Your task to perform on an android device: open app "LinkedIn" Image 0: 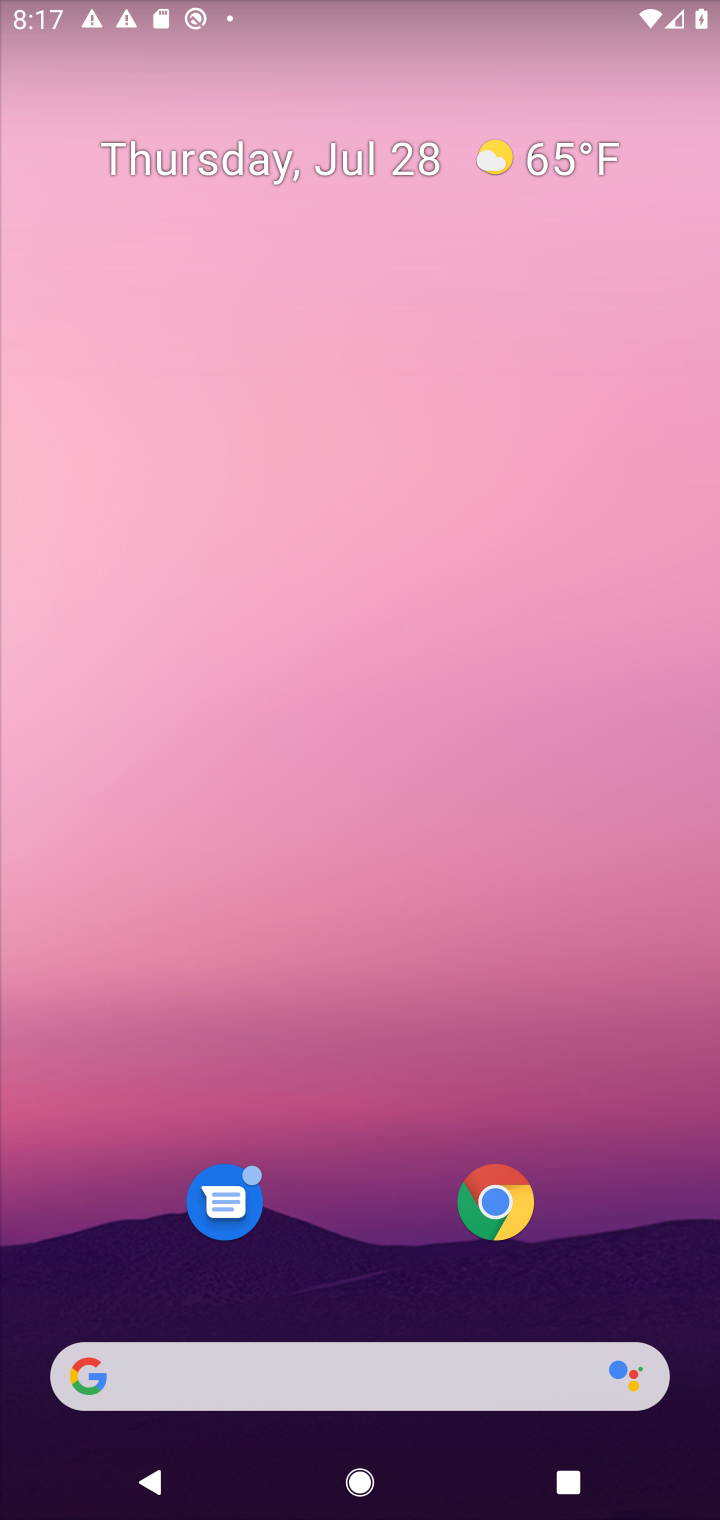
Step 0: press home button
Your task to perform on an android device: open app "LinkedIn" Image 1: 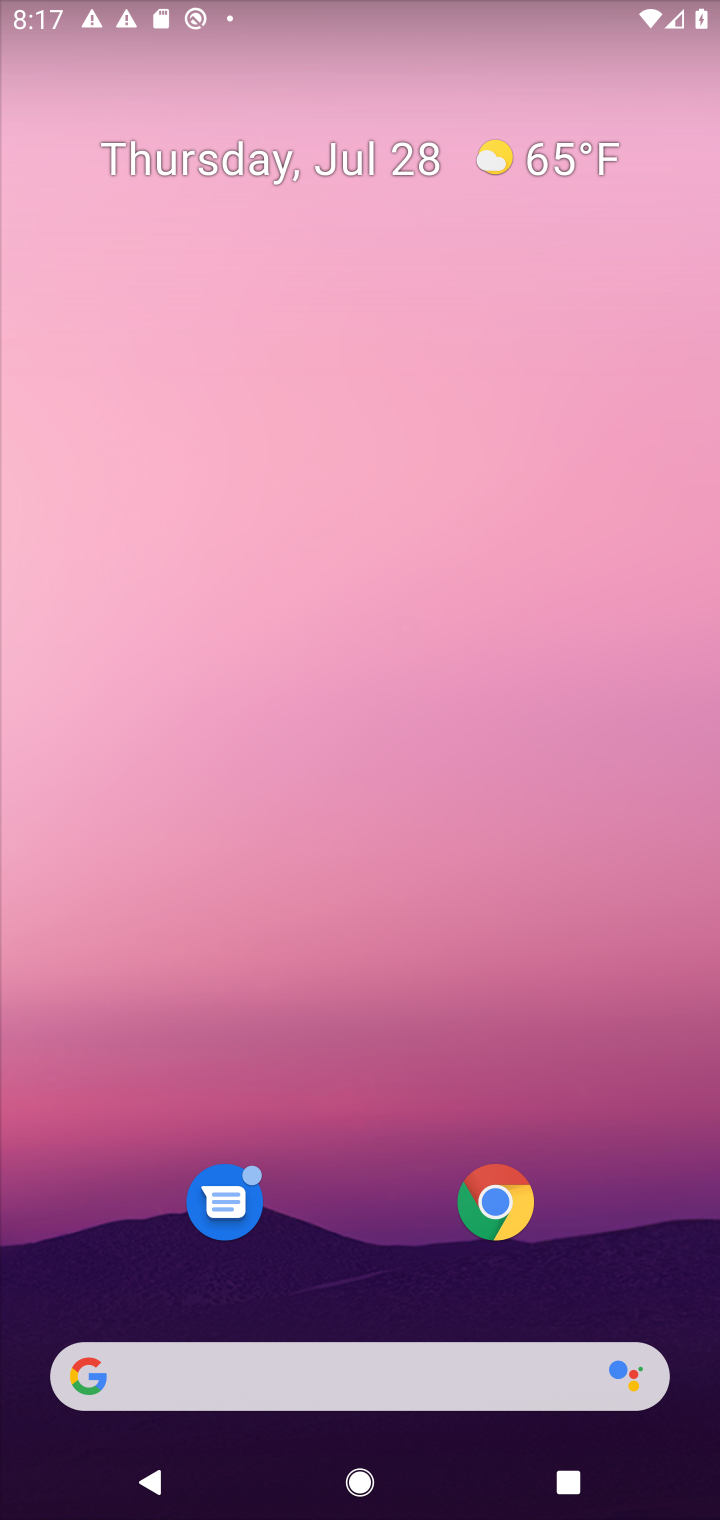
Step 1: drag from (396, 1221) to (484, 0)
Your task to perform on an android device: open app "LinkedIn" Image 2: 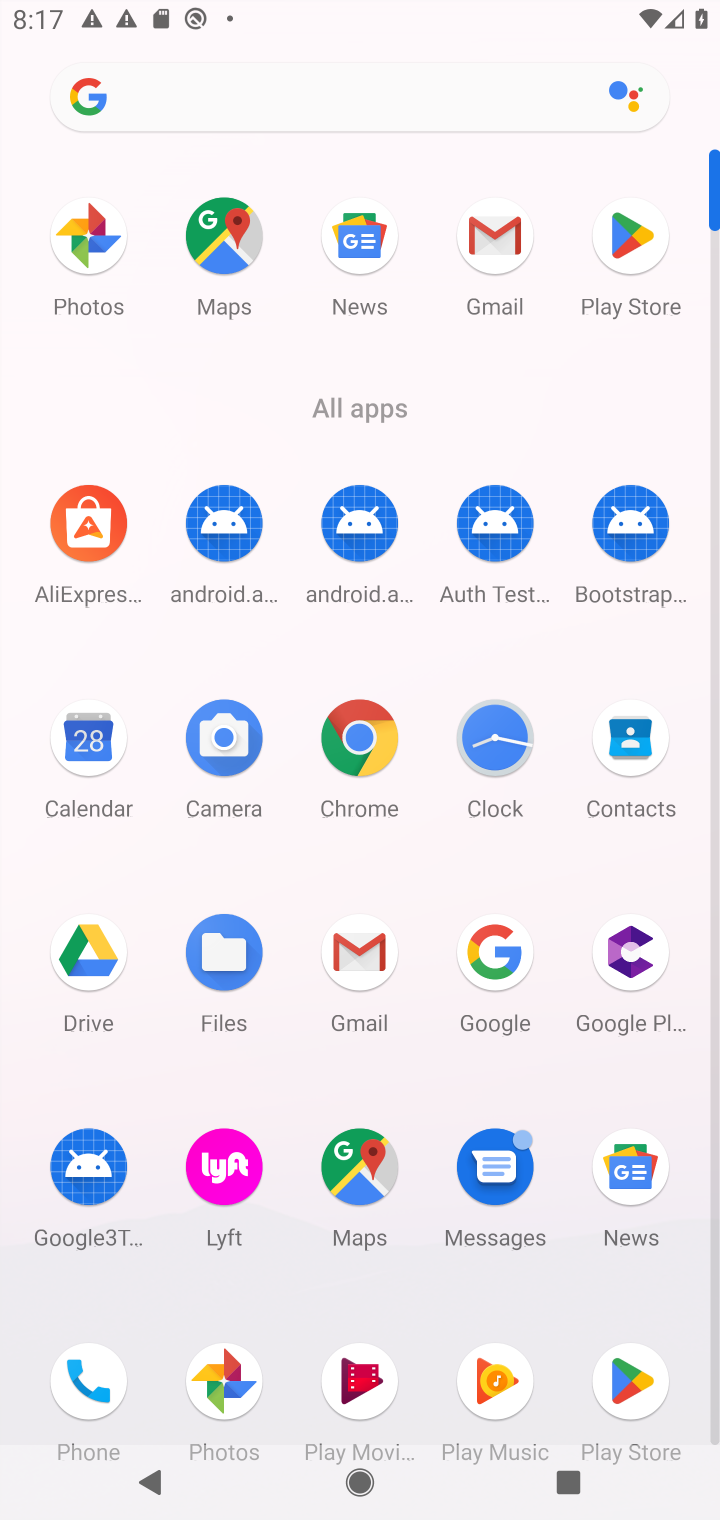
Step 2: click (627, 244)
Your task to perform on an android device: open app "LinkedIn" Image 3: 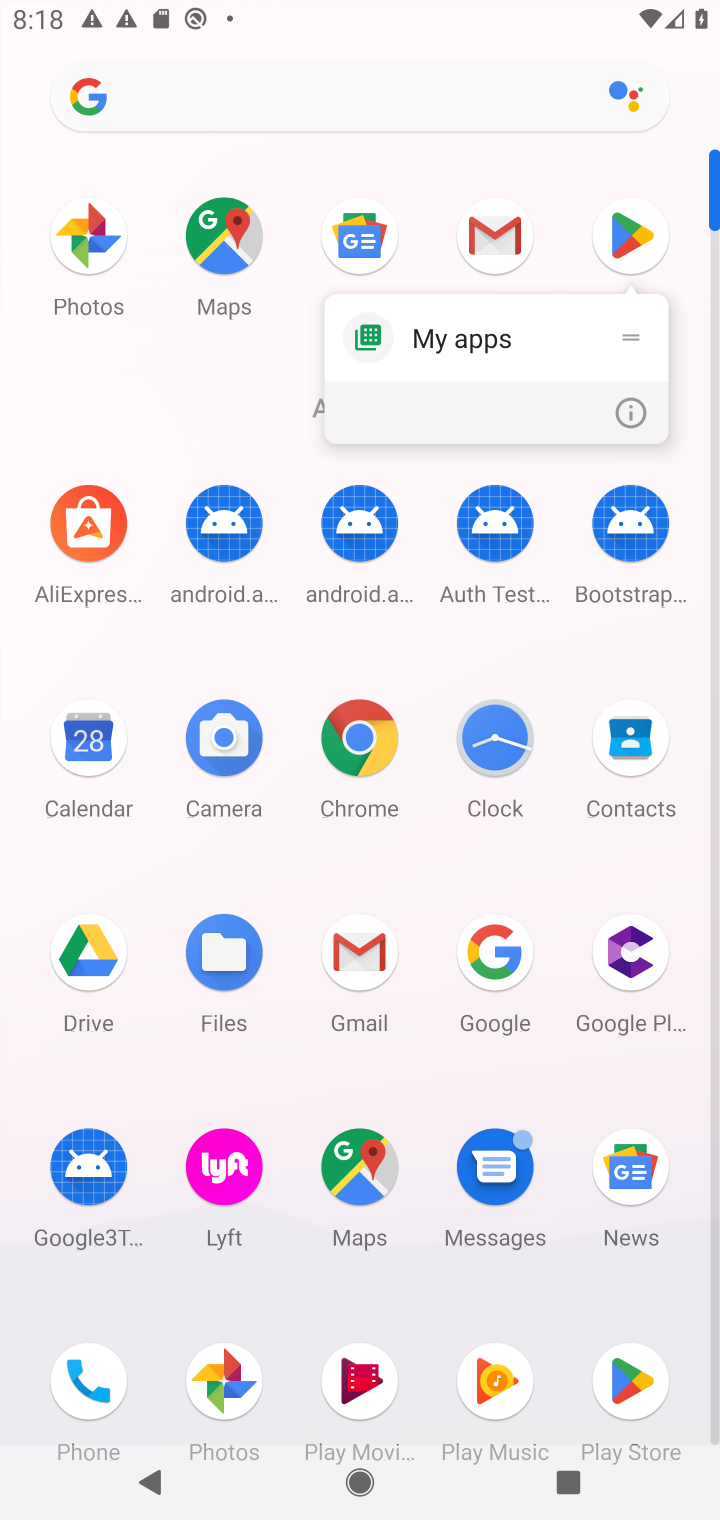
Step 3: click (614, 238)
Your task to perform on an android device: open app "LinkedIn" Image 4: 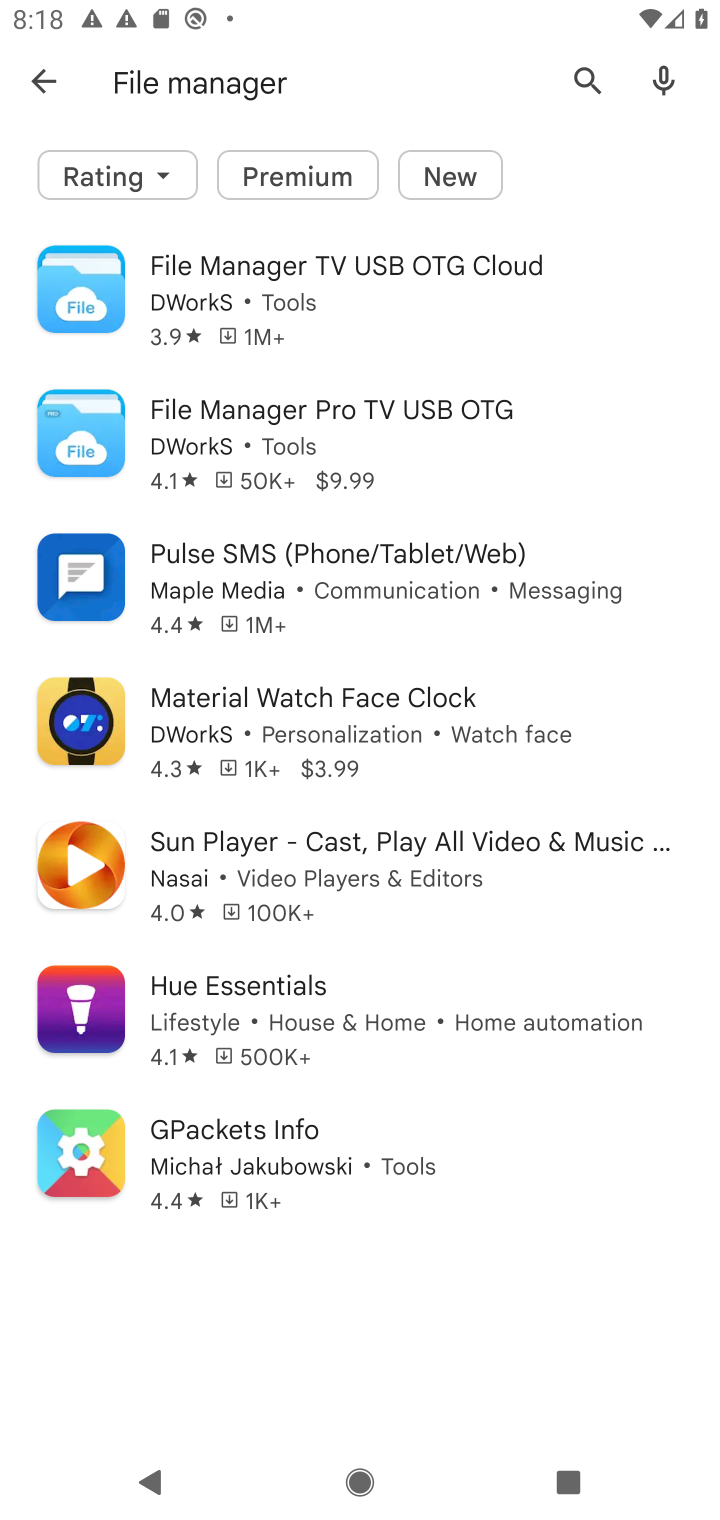
Step 4: click (570, 94)
Your task to perform on an android device: open app "LinkedIn" Image 5: 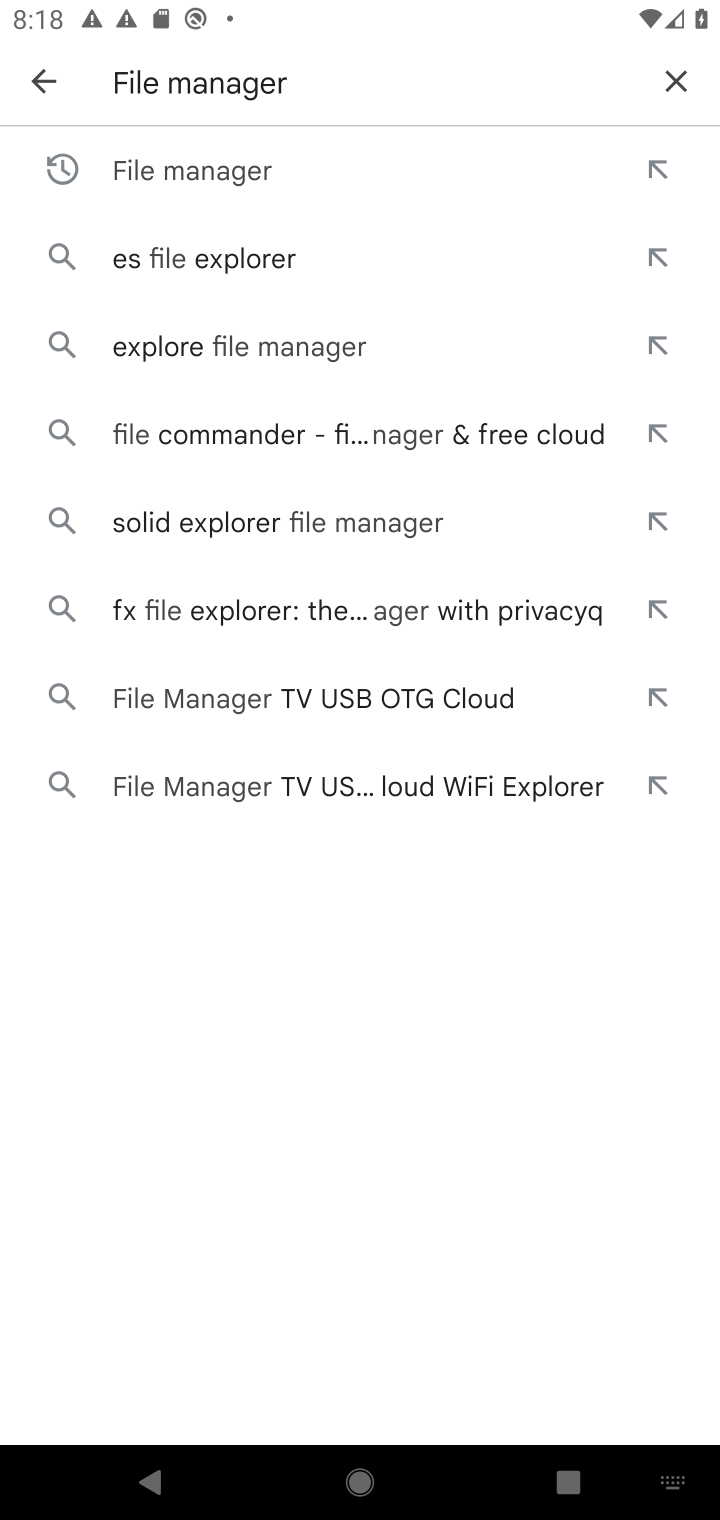
Step 5: click (677, 82)
Your task to perform on an android device: open app "LinkedIn" Image 6: 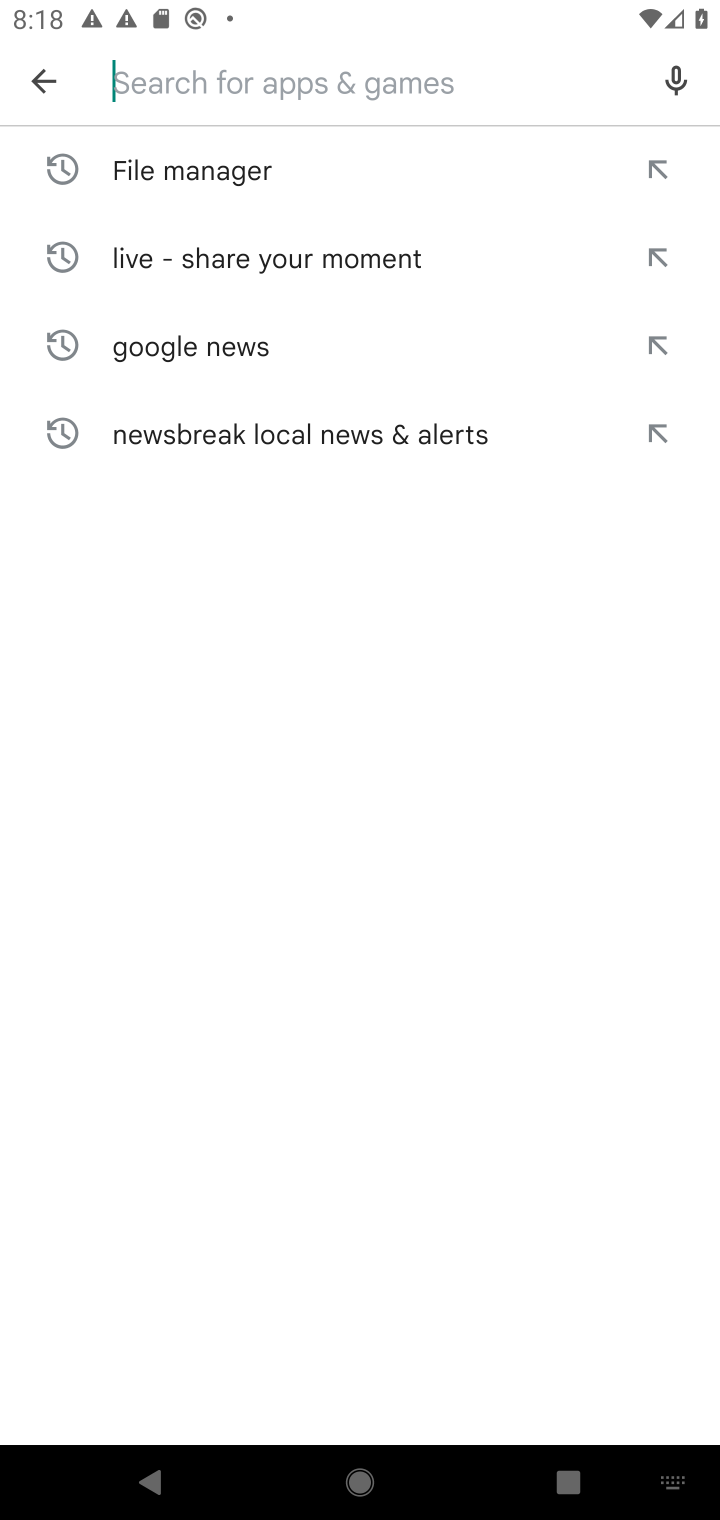
Step 6: click (205, 91)
Your task to perform on an android device: open app "LinkedIn" Image 7: 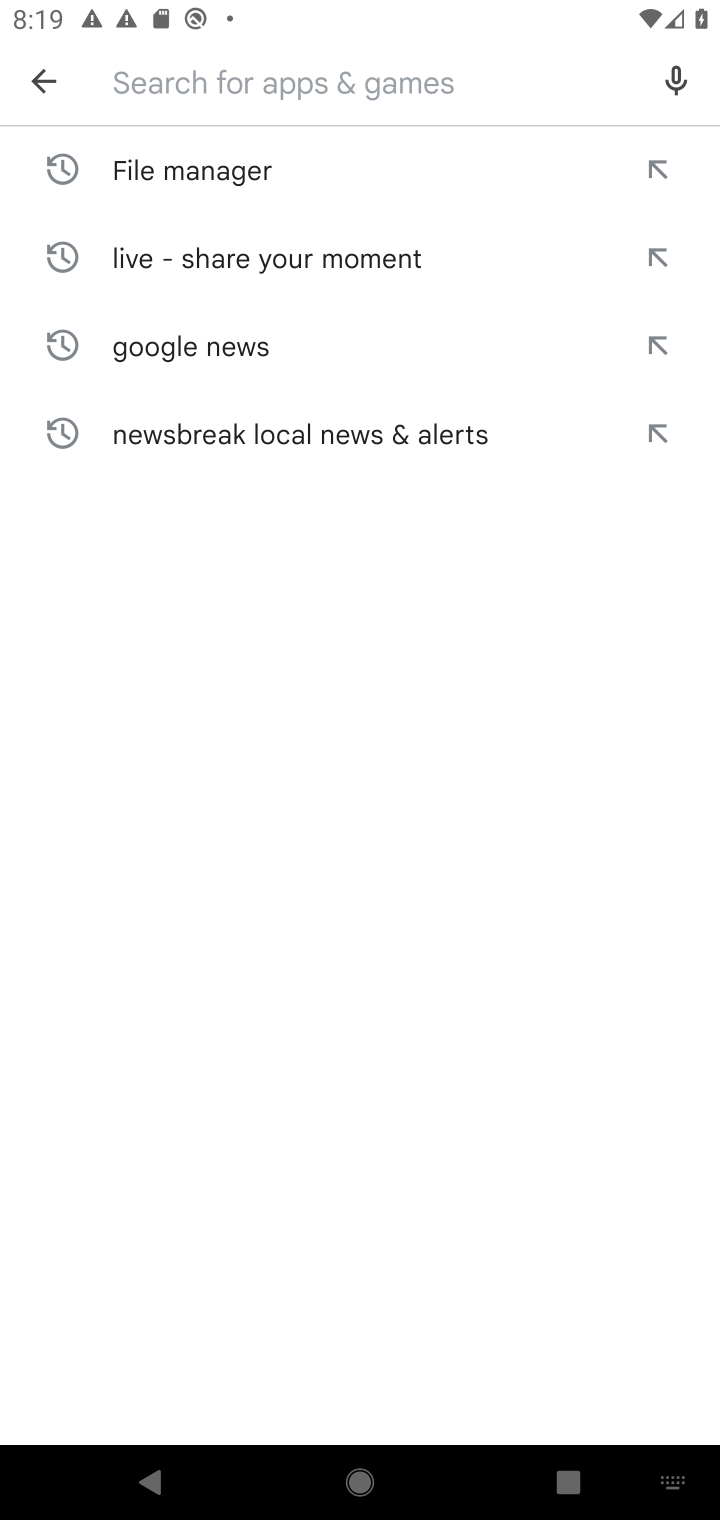
Step 7: type "linkedin"
Your task to perform on an android device: open app "LinkedIn" Image 8: 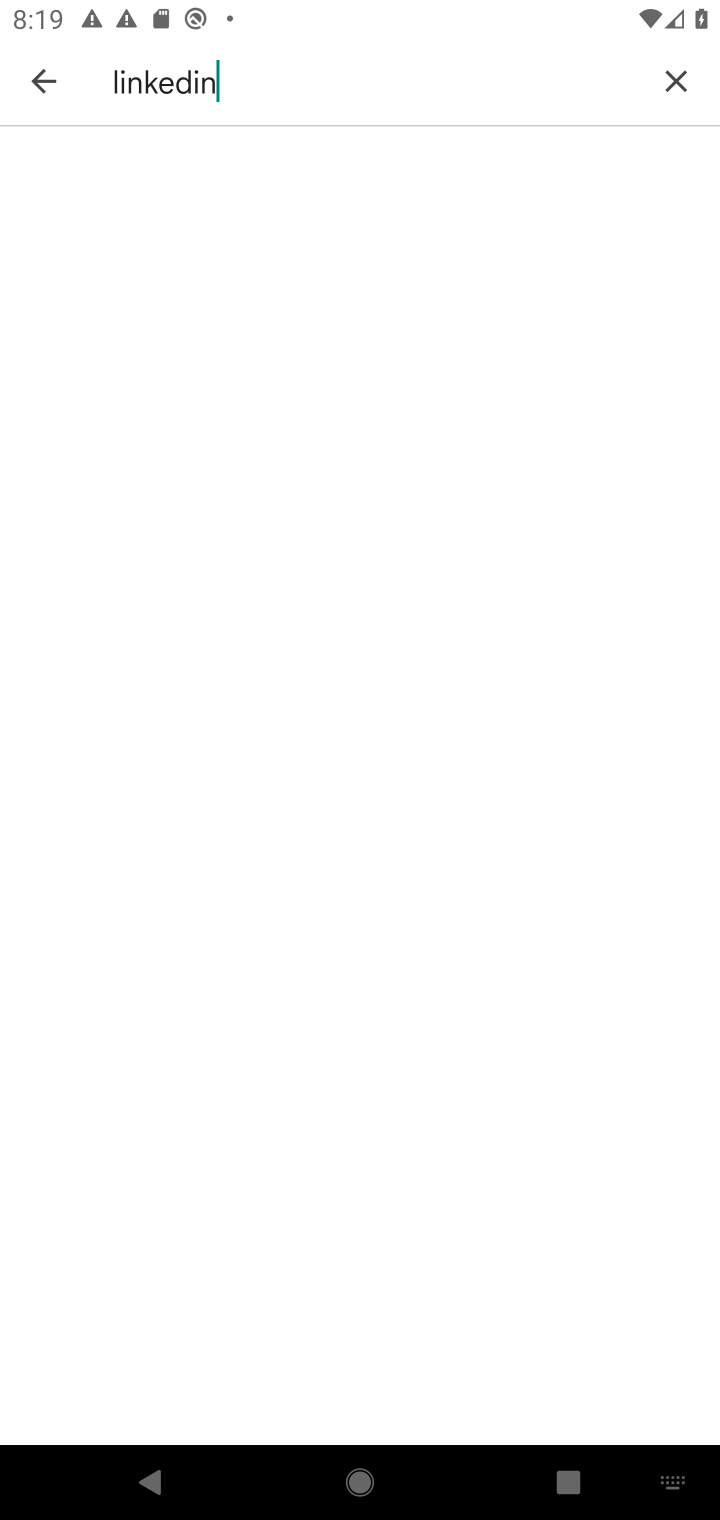
Step 8: click (666, 86)
Your task to perform on an android device: open app "LinkedIn" Image 9: 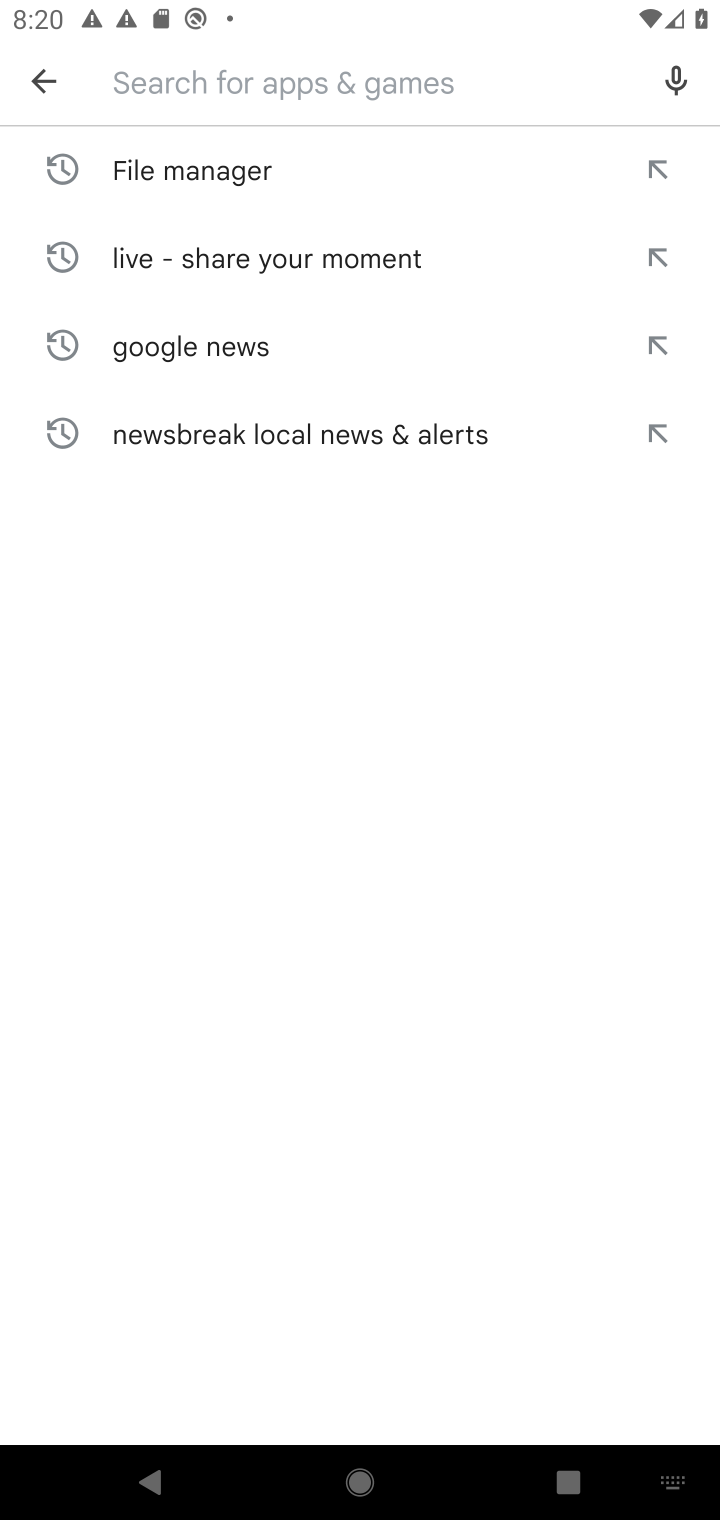
Step 9: type "LinkedIn"
Your task to perform on an android device: open app "LinkedIn" Image 10: 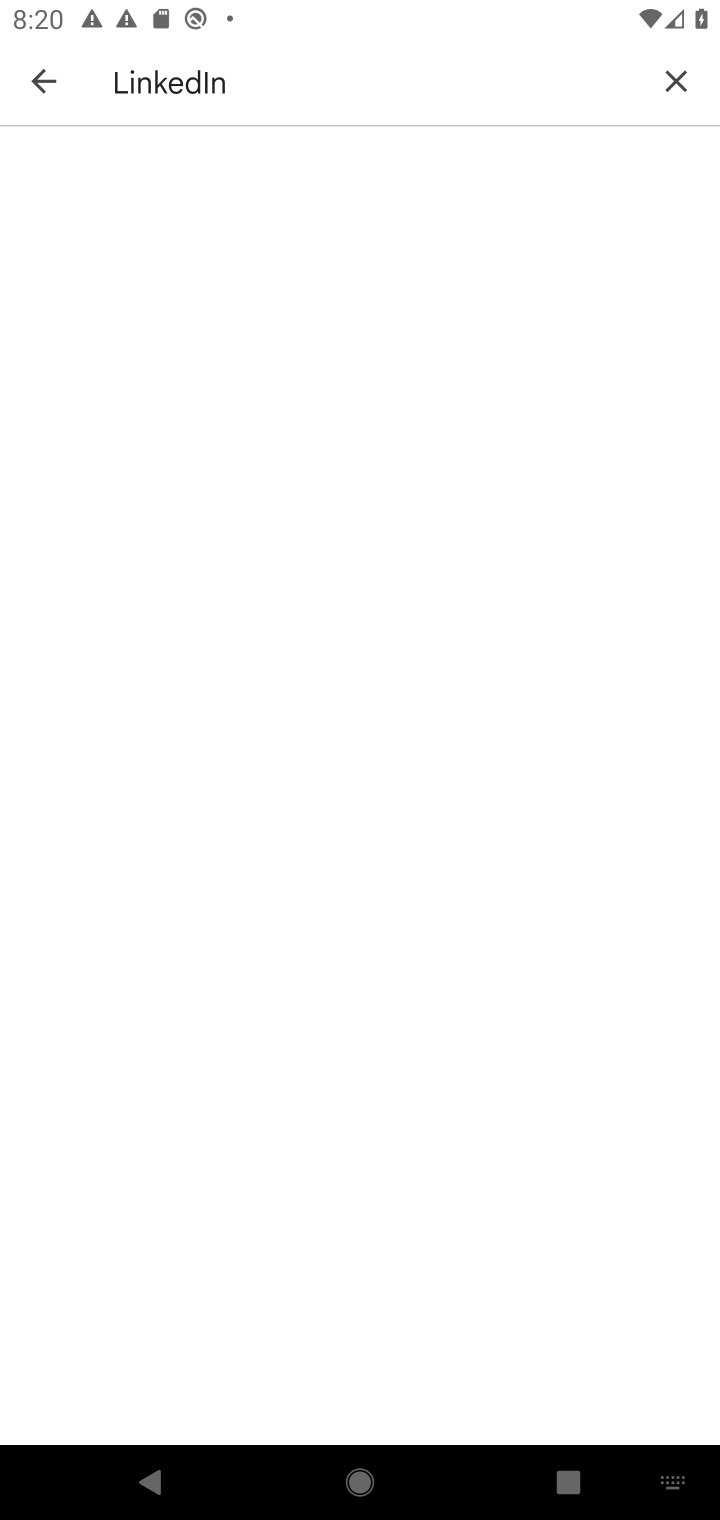
Step 10: task complete